Your task to perform on an android device: Open Android settings Image 0: 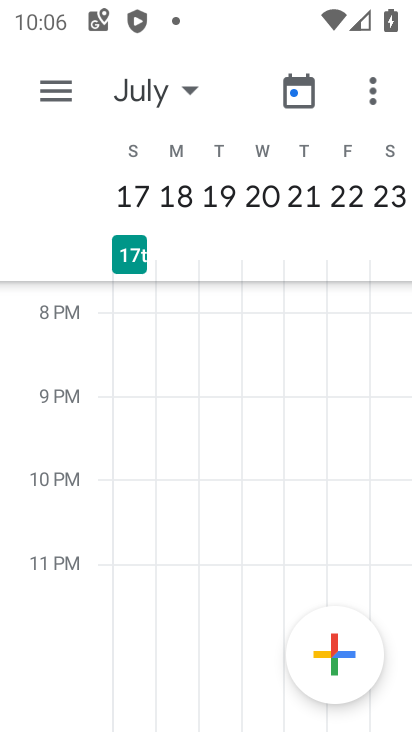
Step 0: press home button
Your task to perform on an android device: Open Android settings Image 1: 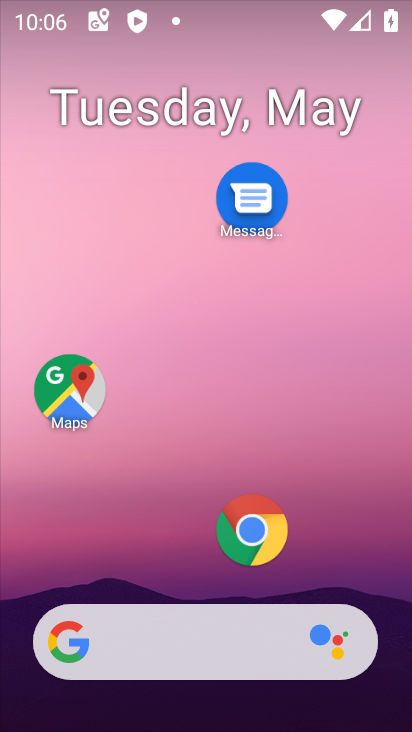
Step 1: drag from (195, 567) to (196, 302)
Your task to perform on an android device: Open Android settings Image 2: 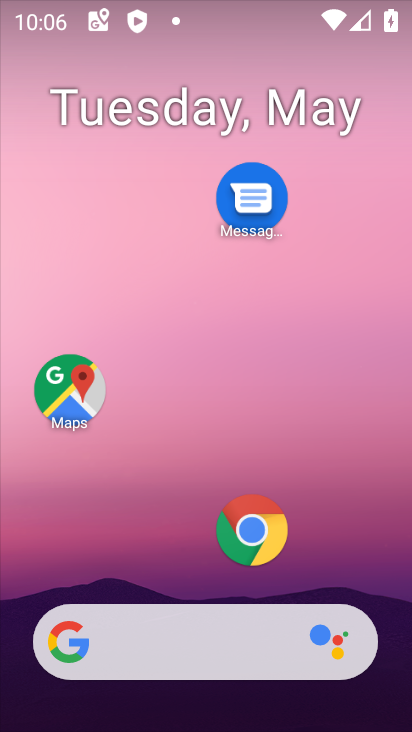
Step 2: drag from (186, 558) to (162, 194)
Your task to perform on an android device: Open Android settings Image 3: 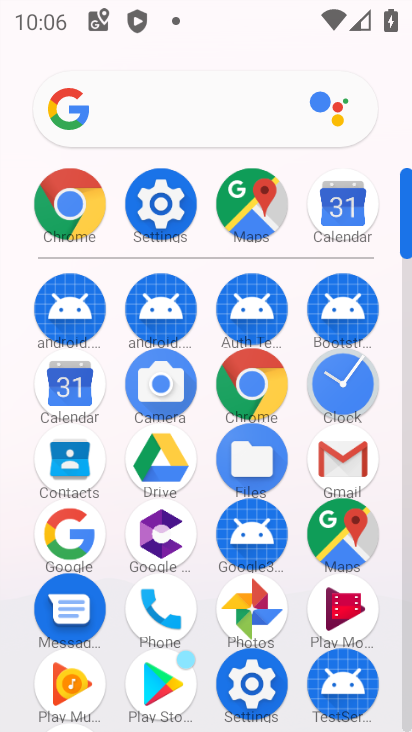
Step 3: click (154, 178)
Your task to perform on an android device: Open Android settings Image 4: 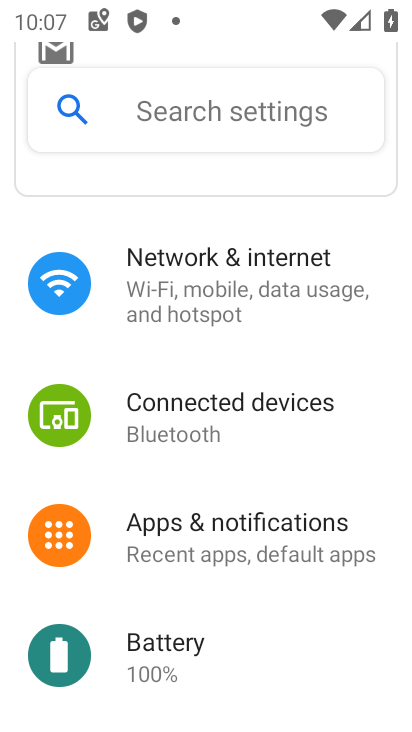
Step 4: drag from (222, 592) to (179, 297)
Your task to perform on an android device: Open Android settings Image 5: 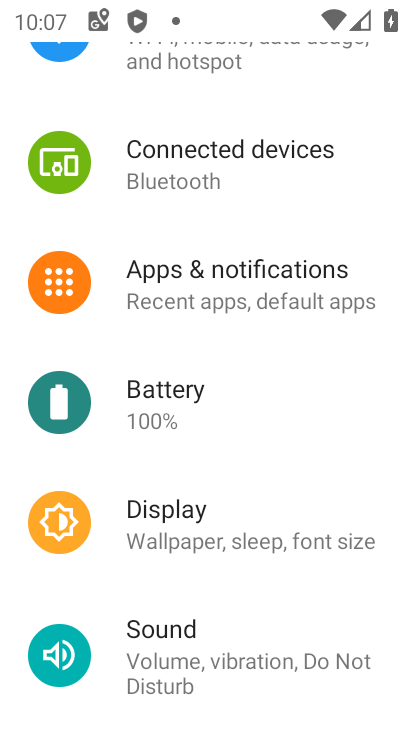
Step 5: drag from (206, 623) to (194, 343)
Your task to perform on an android device: Open Android settings Image 6: 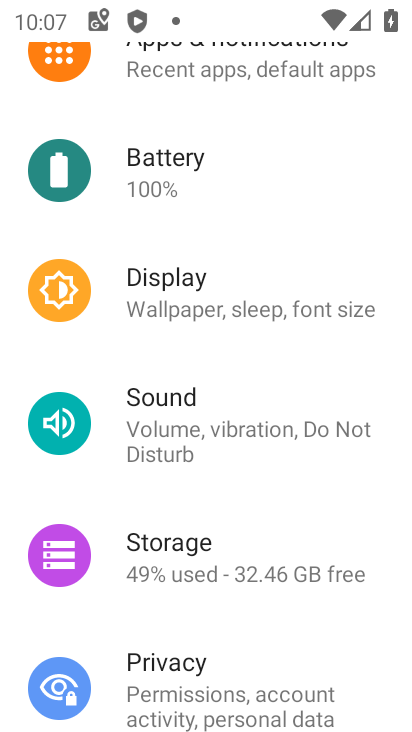
Step 6: drag from (175, 607) to (196, 303)
Your task to perform on an android device: Open Android settings Image 7: 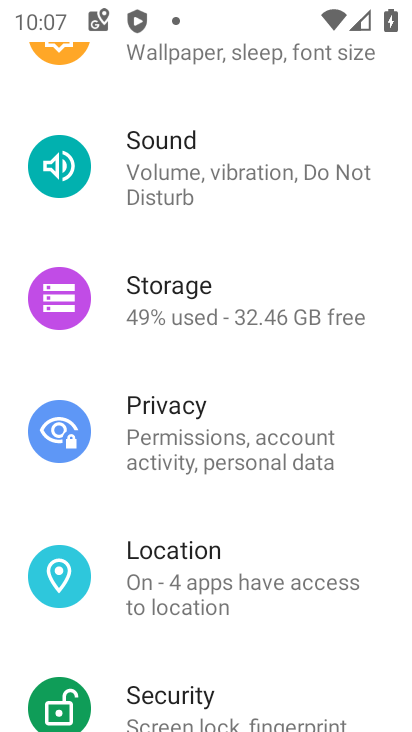
Step 7: drag from (212, 582) to (198, 313)
Your task to perform on an android device: Open Android settings Image 8: 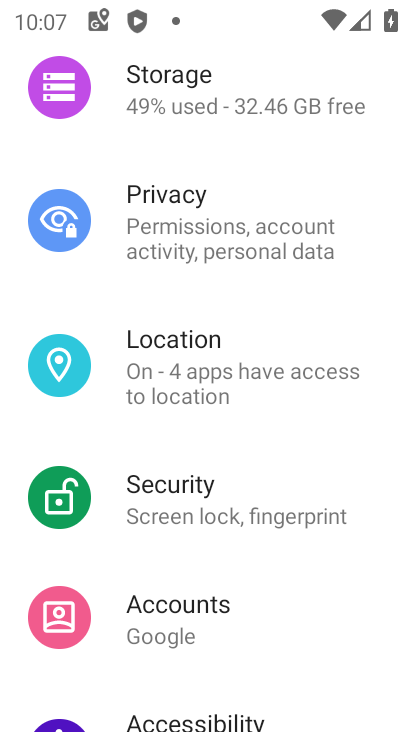
Step 8: drag from (187, 645) to (149, 362)
Your task to perform on an android device: Open Android settings Image 9: 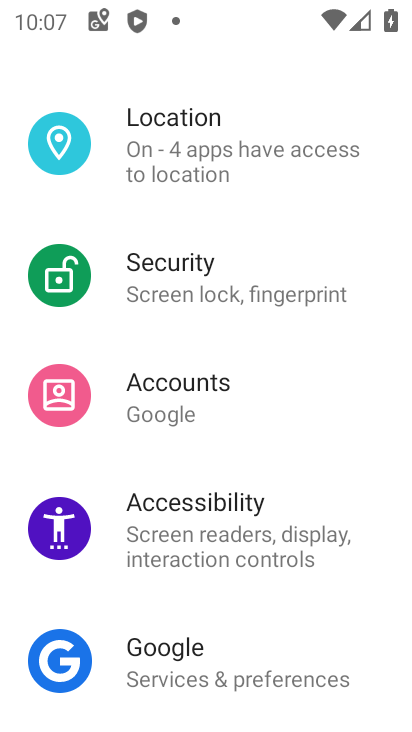
Step 9: drag from (170, 648) to (168, 361)
Your task to perform on an android device: Open Android settings Image 10: 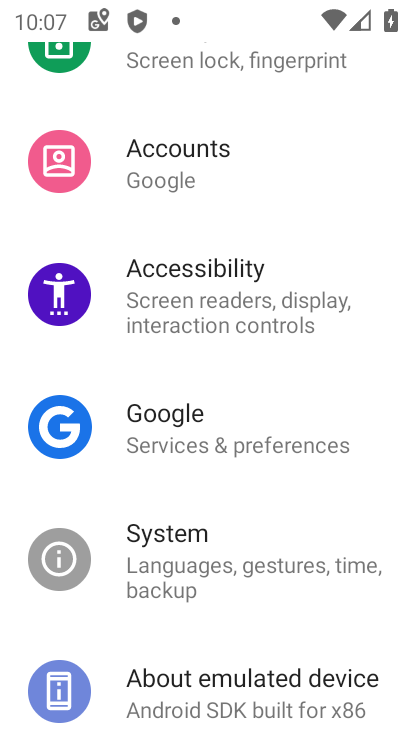
Step 10: click (170, 700)
Your task to perform on an android device: Open Android settings Image 11: 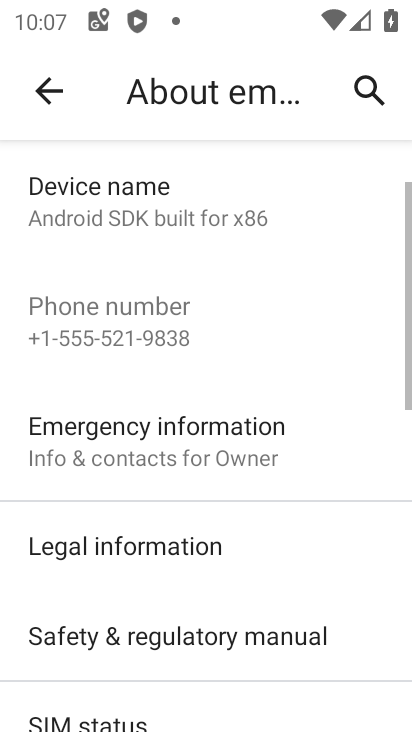
Step 11: drag from (147, 672) to (135, 353)
Your task to perform on an android device: Open Android settings Image 12: 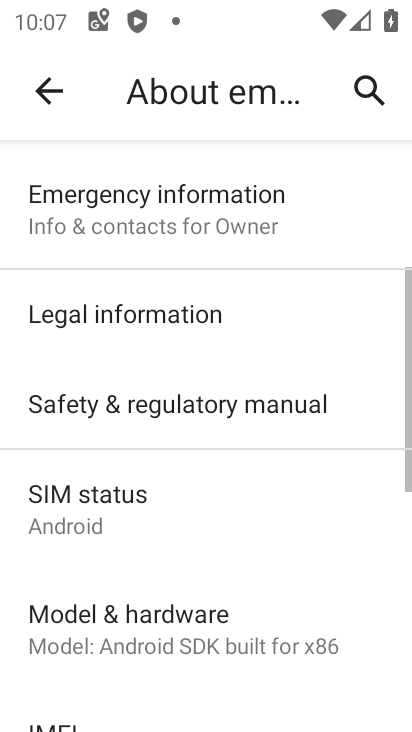
Step 12: drag from (127, 549) to (113, 300)
Your task to perform on an android device: Open Android settings Image 13: 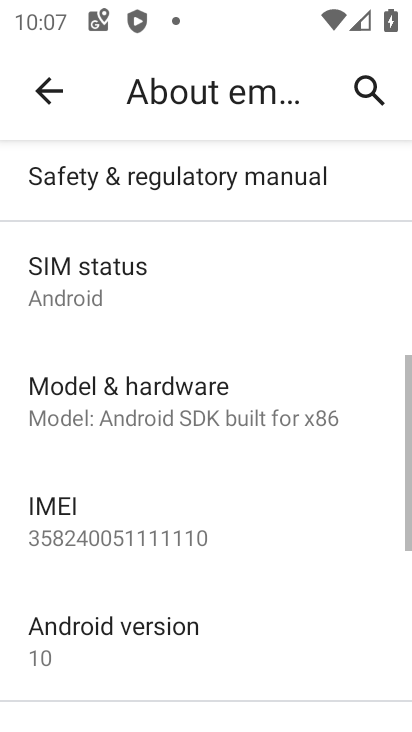
Step 13: click (100, 663)
Your task to perform on an android device: Open Android settings Image 14: 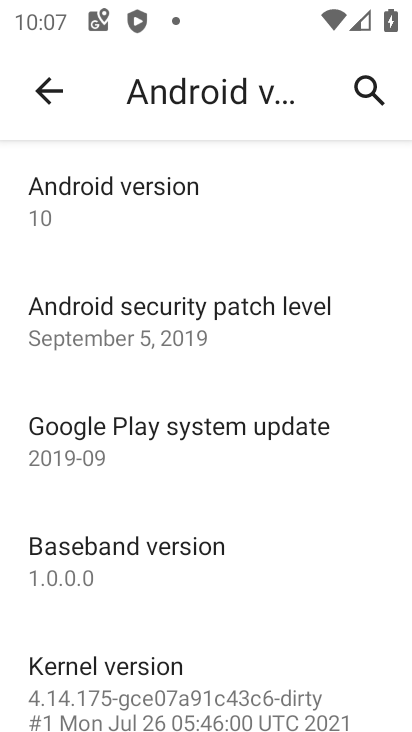
Step 14: task complete